Your task to perform on an android device: turn on improve location accuracy Image 0: 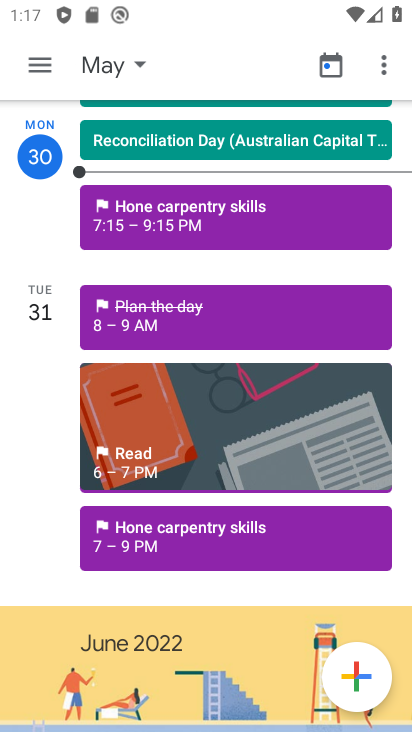
Step 0: press home button
Your task to perform on an android device: turn on improve location accuracy Image 1: 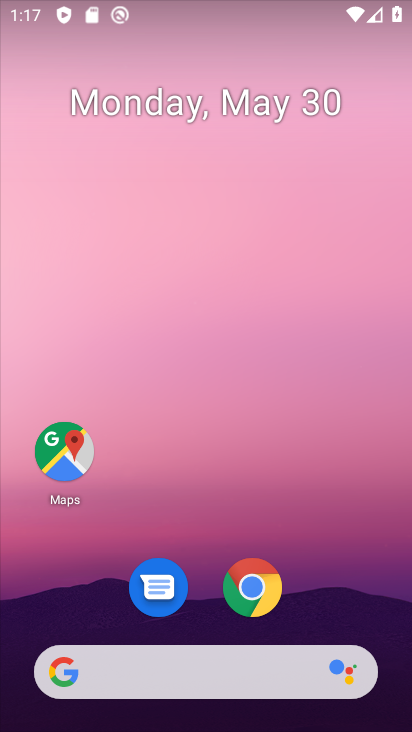
Step 1: drag from (147, 729) to (176, 62)
Your task to perform on an android device: turn on improve location accuracy Image 2: 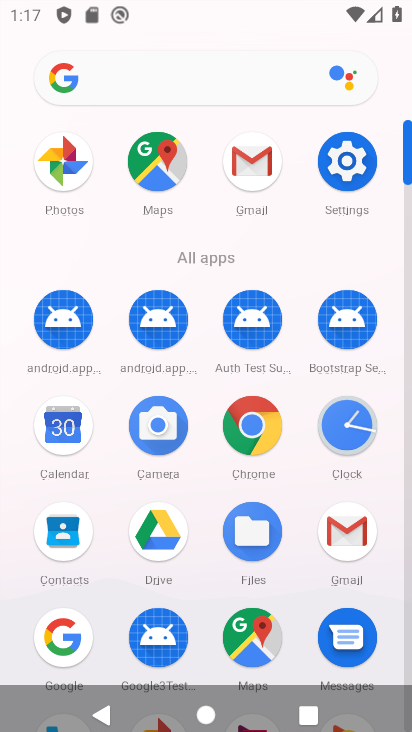
Step 2: click (338, 165)
Your task to perform on an android device: turn on improve location accuracy Image 3: 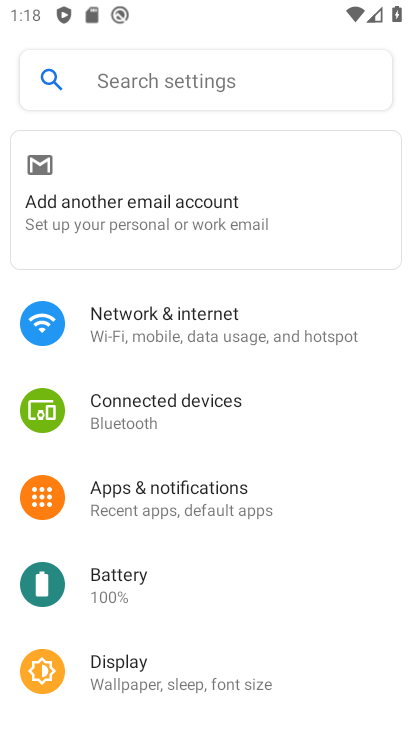
Step 3: drag from (235, 627) to (273, 235)
Your task to perform on an android device: turn on improve location accuracy Image 4: 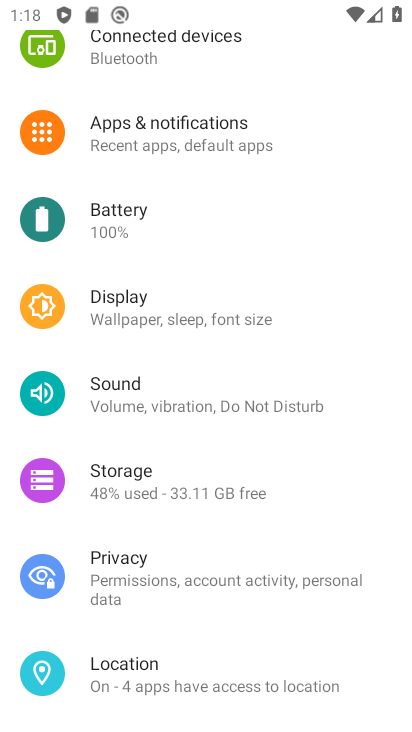
Step 4: click (148, 699)
Your task to perform on an android device: turn on improve location accuracy Image 5: 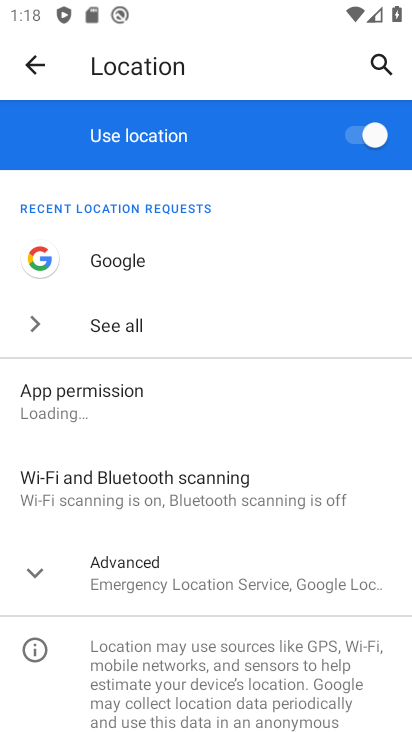
Step 5: click (125, 569)
Your task to perform on an android device: turn on improve location accuracy Image 6: 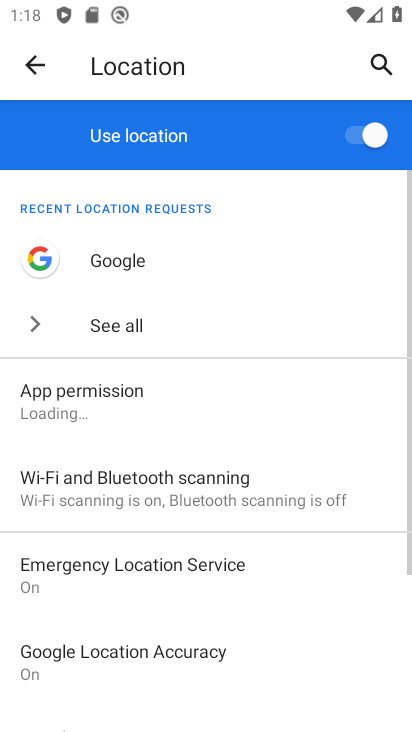
Step 6: click (190, 652)
Your task to perform on an android device: turn on improve location accuracy Image 7: 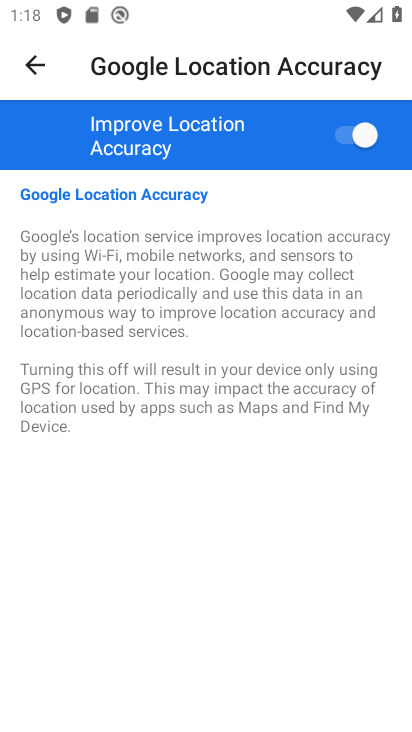
Step 7: task complete